Your task to perform on an android device: Open Google Maps and go to "Timeline" Image 0: 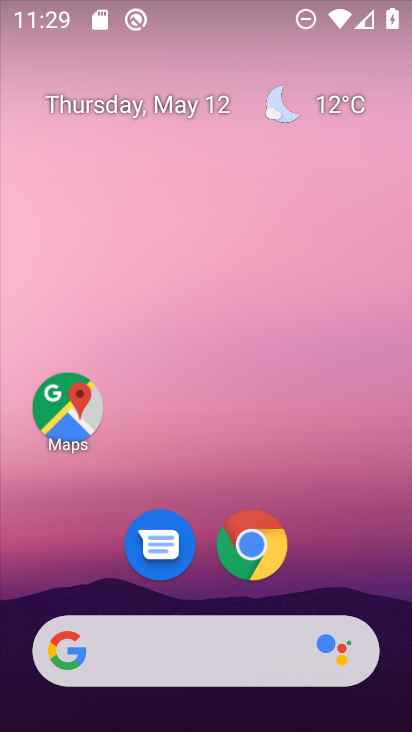
Step 0: drag from (206, 582) to (206, 107)
Your task to perform on an android device: Open Google Maps and go to "Timeline" Image 1: 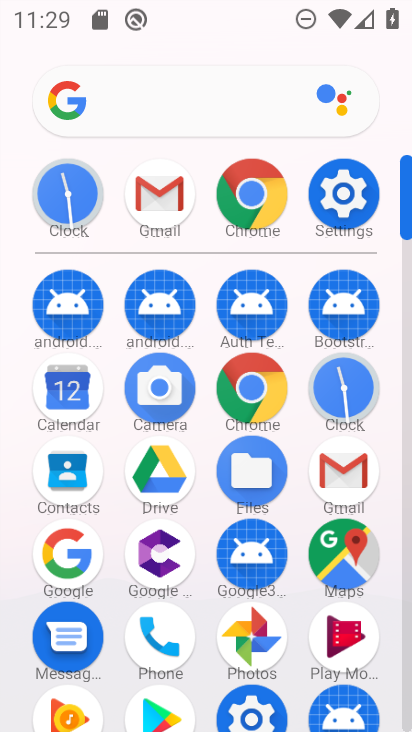
Step 1: click (344, 544)
Your task to perform on an android device: Open Google Maps and go to "Timeline" Image 2: 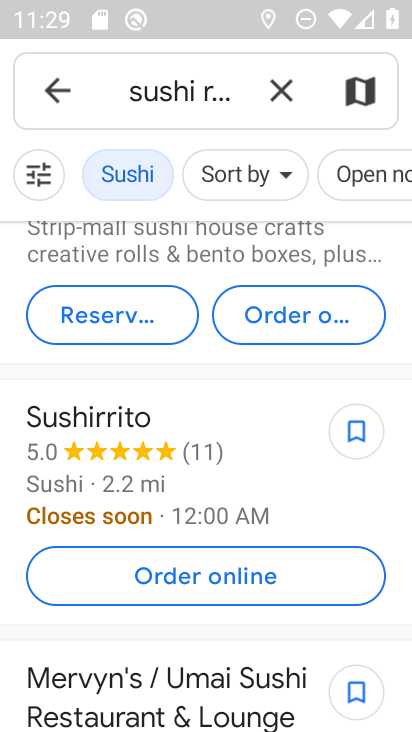
Step 2: click (63, 92)
Your task to perform on an android device: Open Google Maps and go to "Timeline" Image 3: 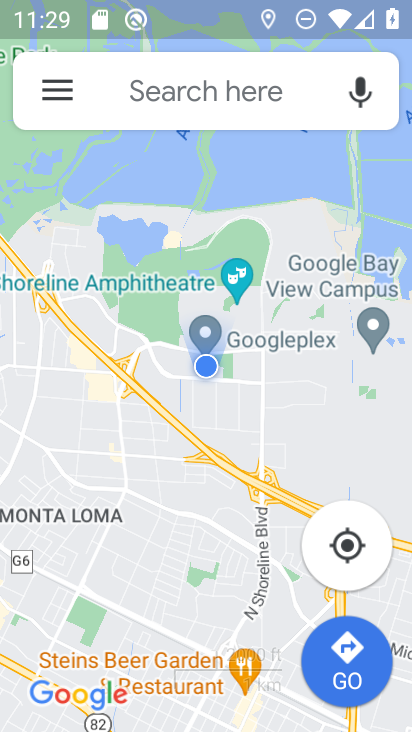
Step 3: click (49, 96)
Your task to perform on an android device: Open Google Maps and go to "Timeline" Image 4: 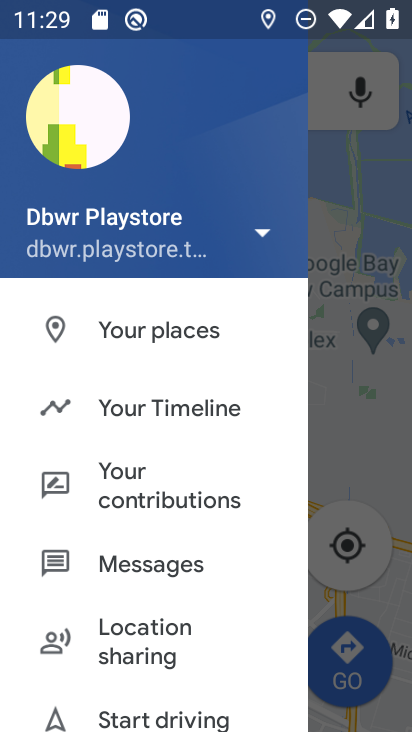
Step 4: click (147, 400)
Your task to perform on an android device: Open Google Maps and go to "Timeline" Image 5: 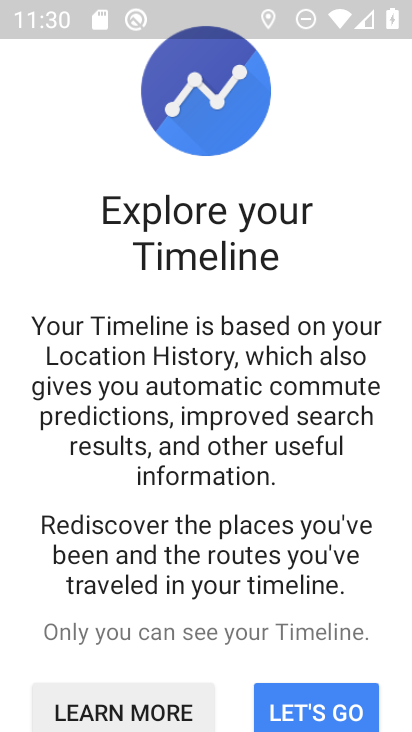
Step 5: drag from (233, 684) to (246, 321)
Your task to perform on an android device: Open Google Maps and go to "Timeline" Image 6: 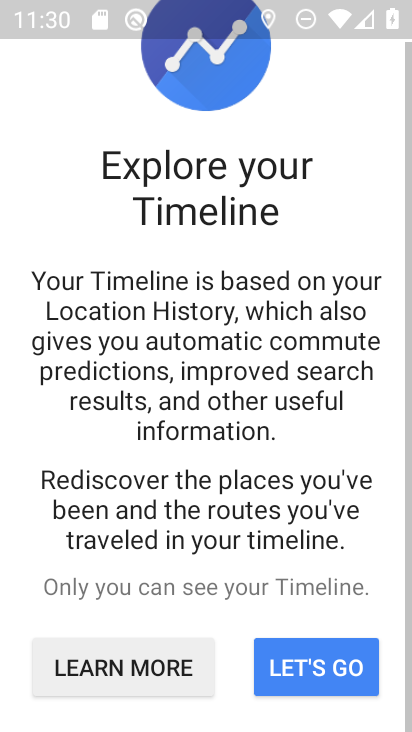
Step 6: click (322, 666)
Your task to perform on an android device: Open Google Maps and go to "Timeline" Image 7: 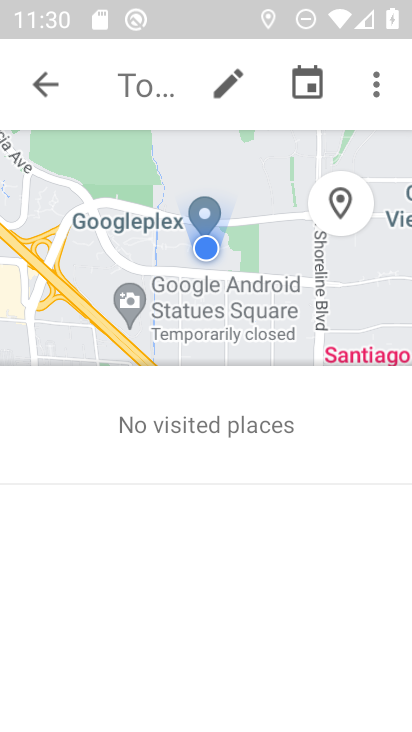
Step 7: task complete